Your task to perform on an android device: Open calendar and show me the first week of next month Image 0: 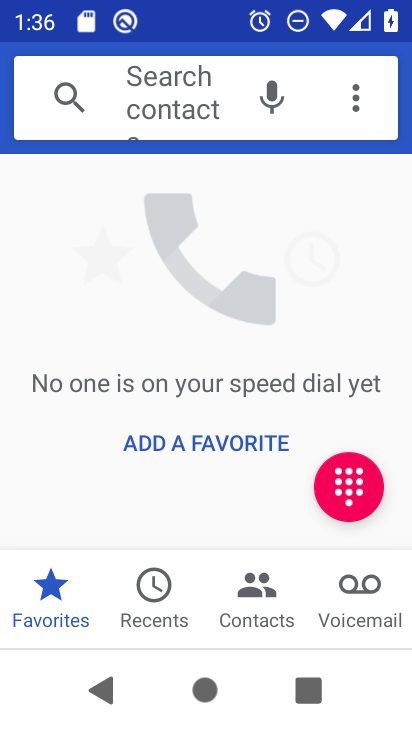
Step 0: press home button
Your task to perform on an android device: Open calendar and show me the first week of next month Image 1: 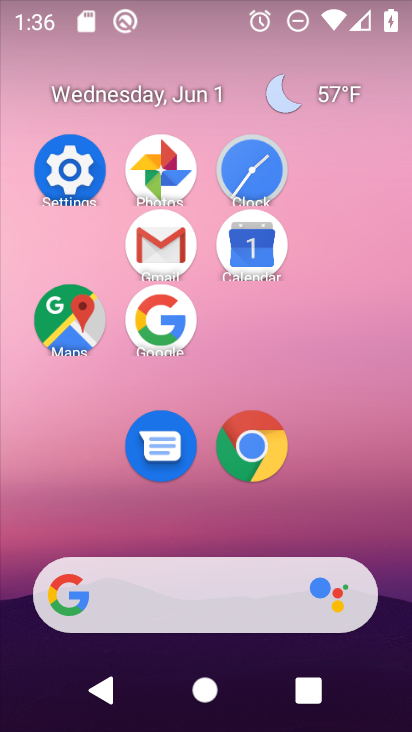
Step 1: click (260, 268)
Your task to perform on an android device: Open calendar and show me the first week of next month Image 2: 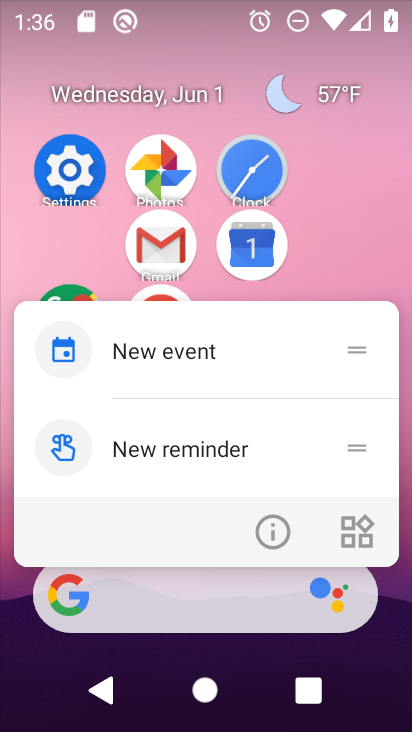
Step 2: click (249, 250)
Your task to perform on an android device: Open calendar and show me the first week of next month Image 3: 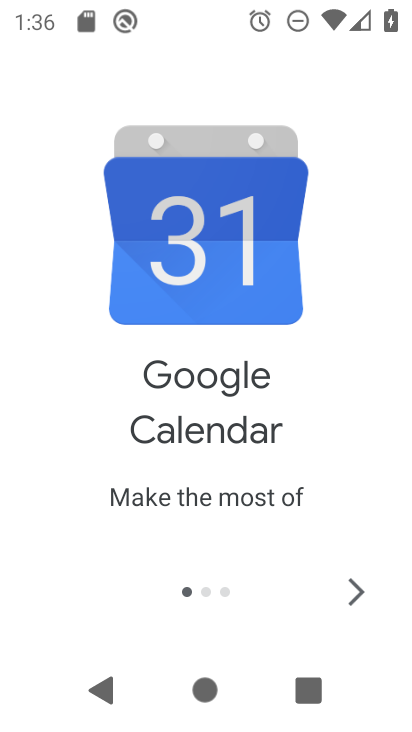
Step 3: click (356, 601)
Your task to perform on an android device: Open calendar and show me the first week of next month Image 4: 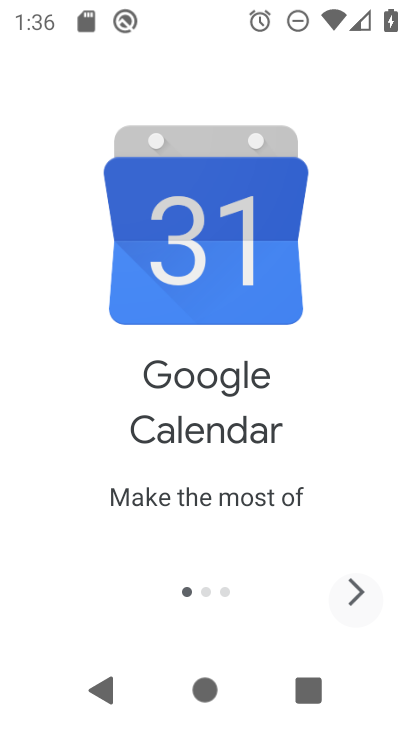
Step 4: click (356, 601)
Your task to perform on an android device: Open calendar and show me the first week of next month Image 5: 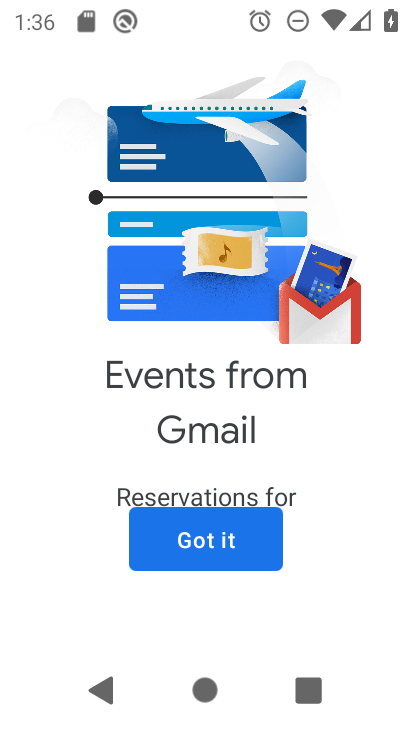
Step 5: click (356, 601)
Your task to perform on an android device: Open calendar and show me the first week of next month Image 6: 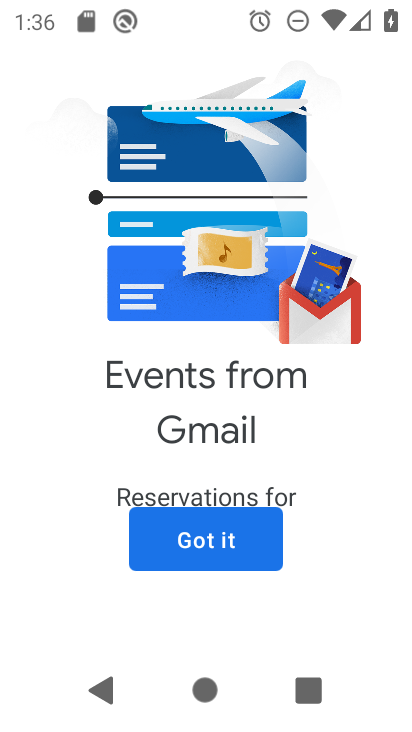
Step 6: click (253, 530)
Your task to perform on an android device: Open calendar and show me the first week of next month Image 7: 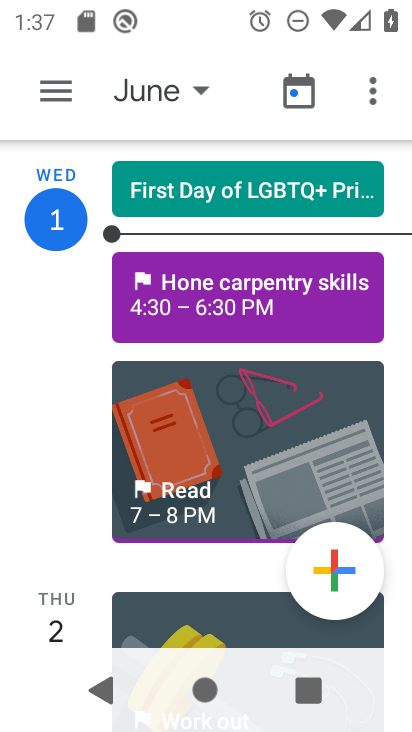
Step 7: click (55, 99)
Your task to perform on an android device: Open calendar and show me the first week of next month Image 8: 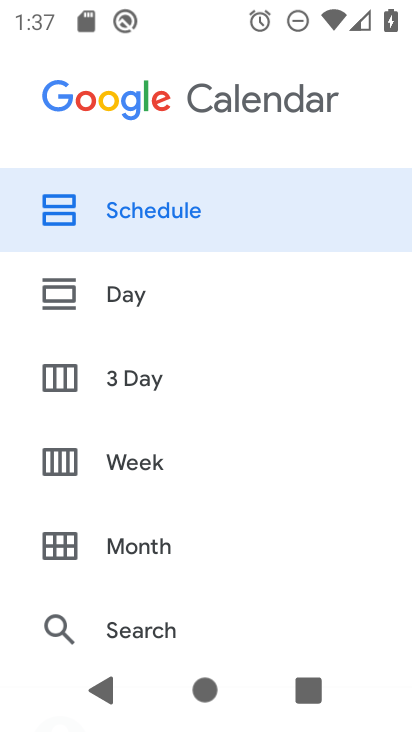
Step 8: click (184, 454)
Your task to perform on an android device: Open calendar and show me the first week of next month Image 9: 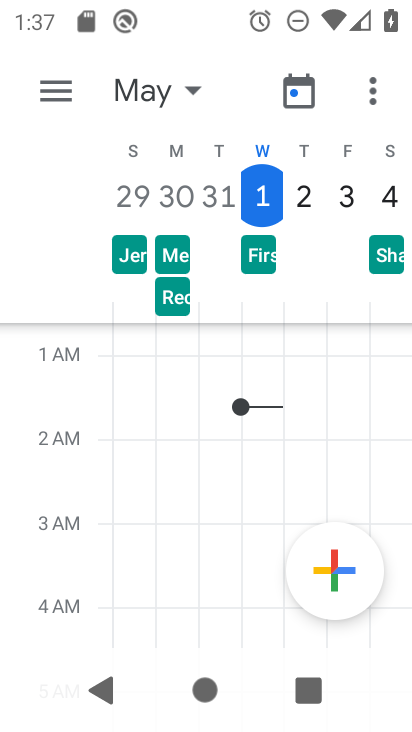
Step 9: task complete